Your task to perform on an android device: Go to notification settings Image 0: 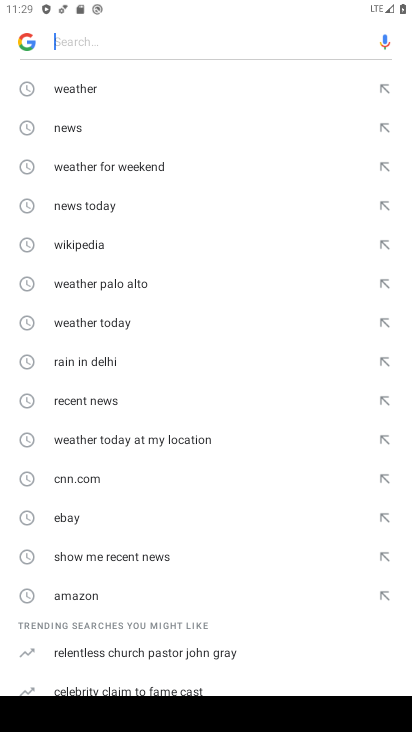
Step 0: press home button
Your task to perform on an android device: Go to notification settings Image 1: 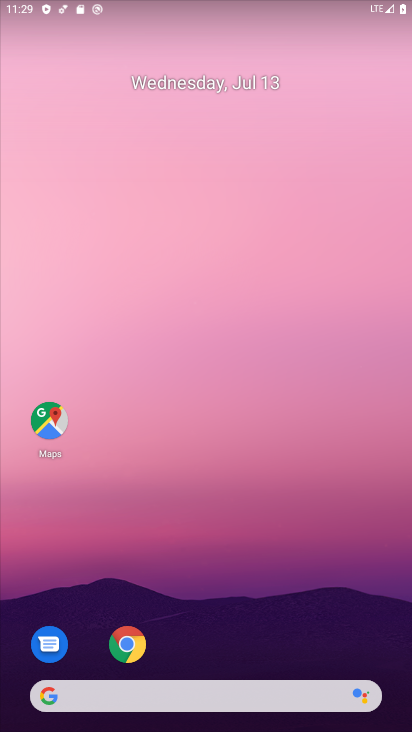
Step 1: drag from (198, 658) to (288, 152)
Your task to perform on an android device: Go to notification settings Image 2: 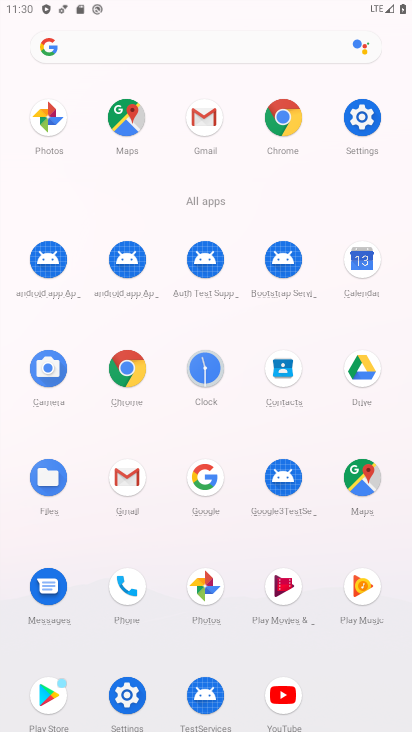
Step 2: click (138, 706)
Your task to perform on an android device: Go to notification settings Image 3: 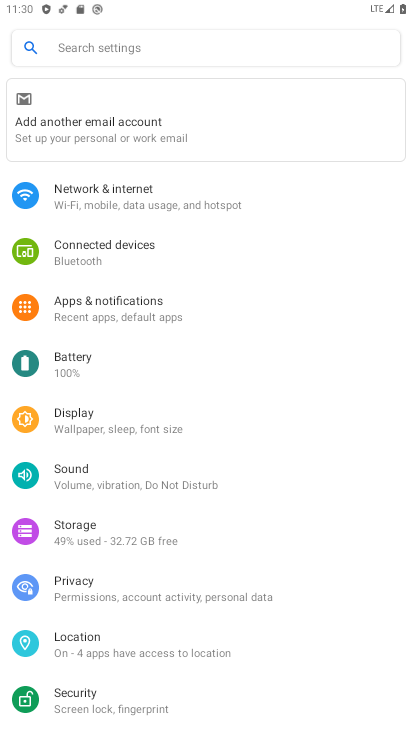
Step 3: click (157, 307)
Your task to perform on an android device: Go to notification settings Image 4: 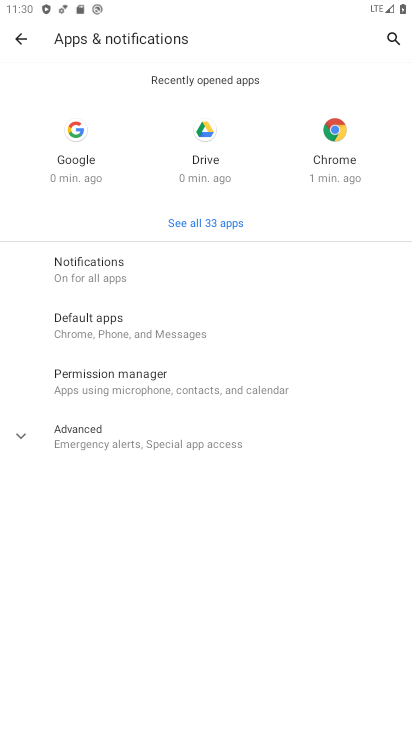
Step 4: click (183, 274)
Your task to perform on an android device: Go to notification settings Image 5: 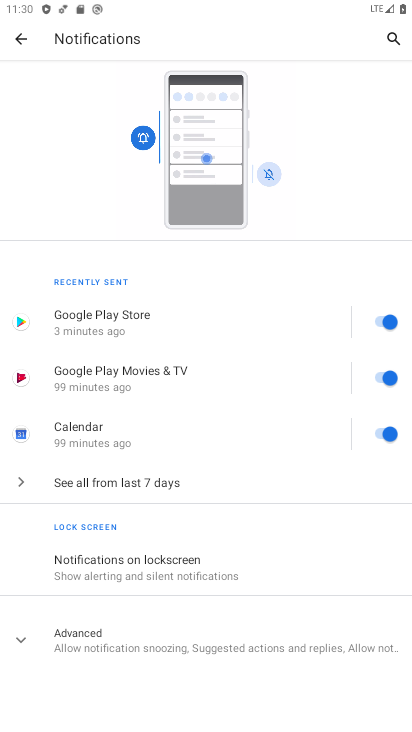
Step 5: task complete